Your task to perform on an android device: Go to internet settings Image 0: 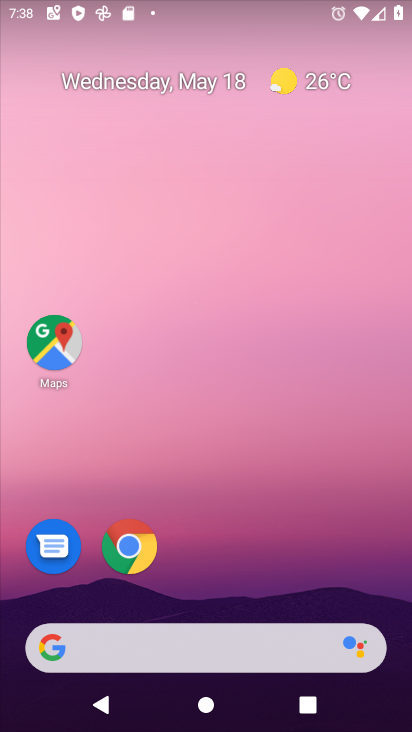
Step 0: drag from (371, 603) to (267, 34)
Your task to perform on an android device: Go to internet settings Image 1: 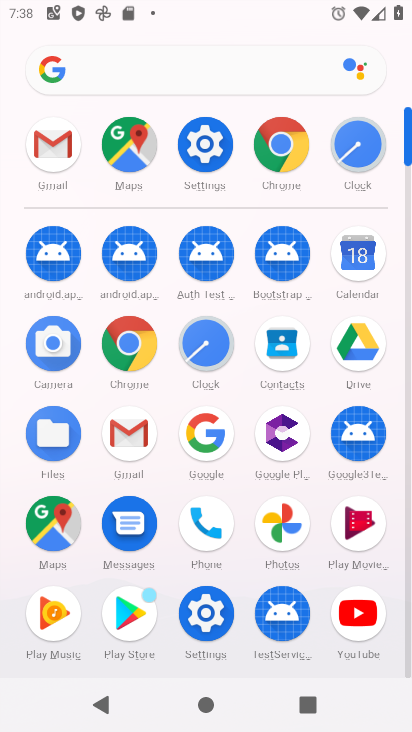
Step 1: click (199, 167)
Your task to perform on an android device: Go to internet settings Image 2: 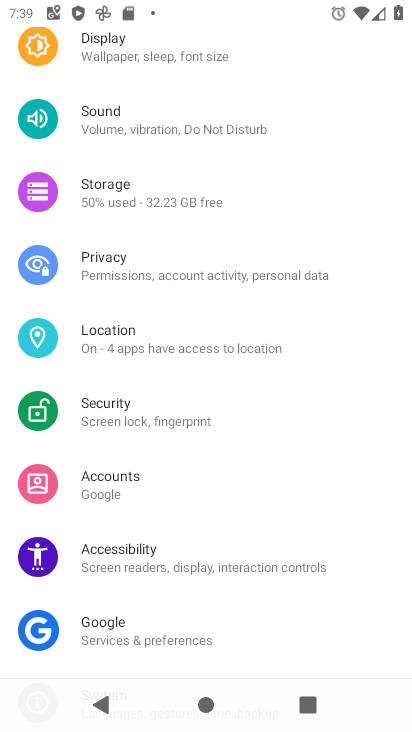
Step 2: drag from (180, 145) to (317, 725)
Your task to perform on an android device: Go to internet settings Image 3: 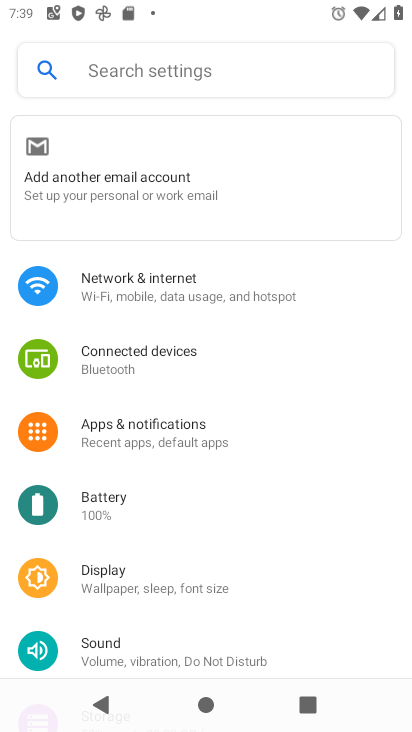
Step 3: click (160, 320)
Your task to perform on an android device: Go to internet settings Image 4: 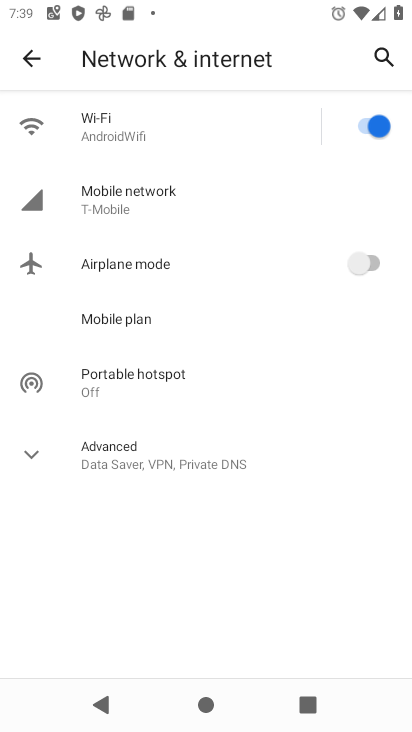
Step 4: task complete